Your task to perform on an android device: turn off airplane mode Image 0: 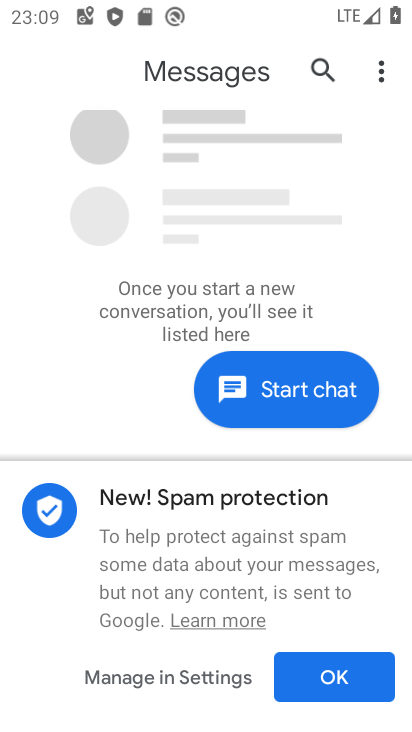
Step 0: click (210, 461)
Your task to perform on an android device: turn off airplane mode Image 1: 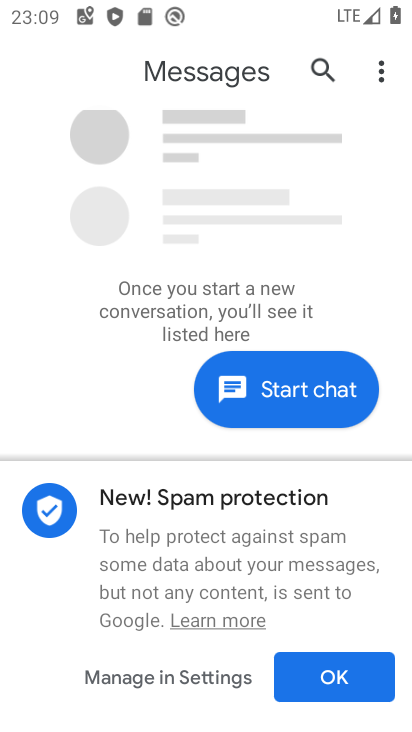
Step 1: press home button
Your task to perform on an android device: turn off airplane mode Image 2: 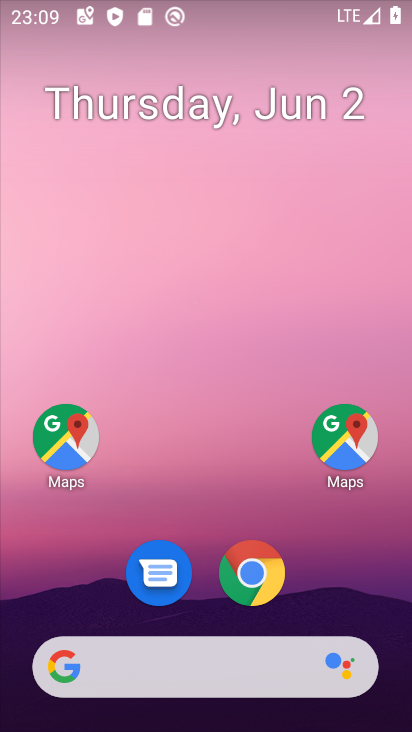
Step 2: drag from (256, 492) to (255, 299)
Your task to perform on an android device: turn off airplane mode Image 3: 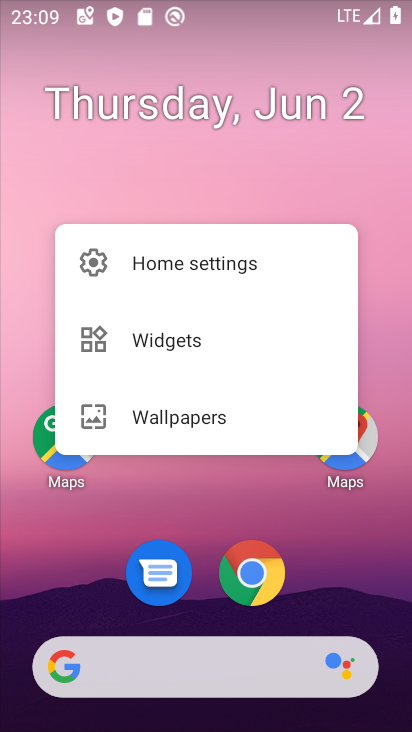
Step 3: press back button
Your task to perform on an android device: turn off airplane mode Image 4: 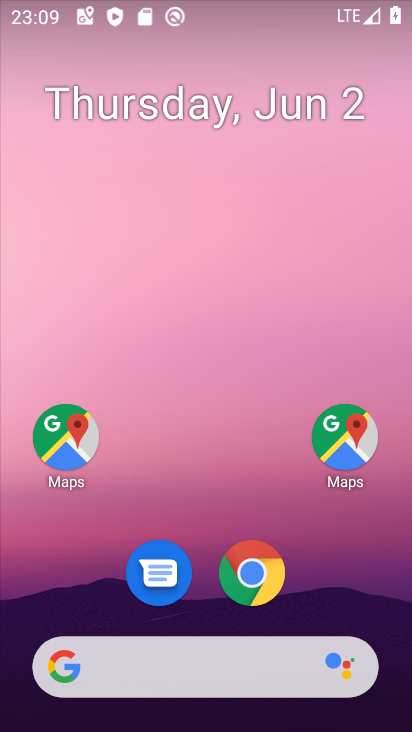
Step 4: press back button
Your task to perform on an android device: turn off airplane mode Image 5: 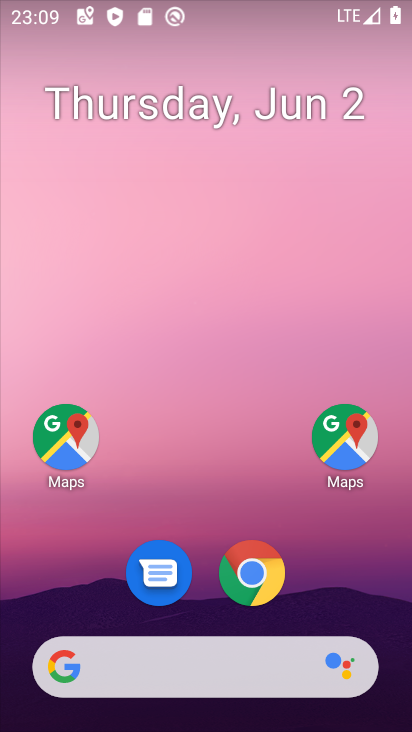
Step 5: drag from (249, 483) to (274, 184)
Your task to perform on an android device: turn off airplane mode Image 6: 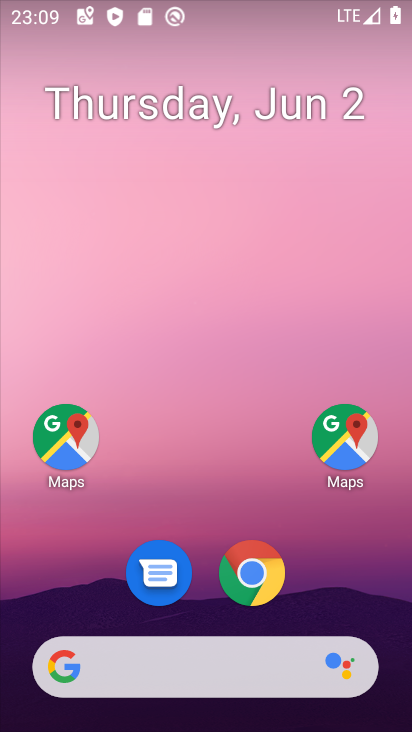
Step 6: drag from (305, 556) to (300, 200)
Your task to perform on an android device: turn off airplane mode Image 7: 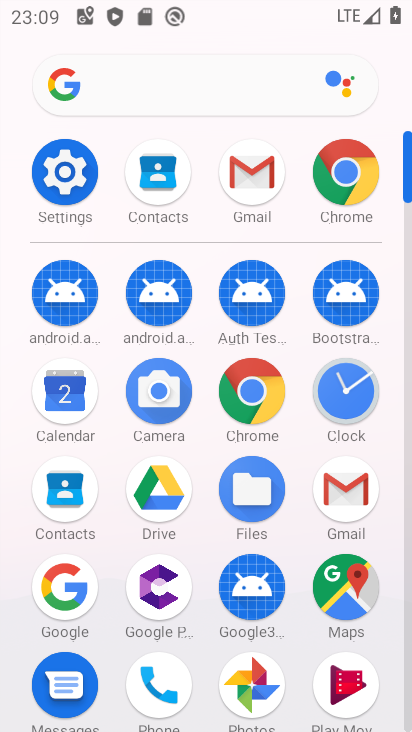
Step 7: click (57, 197)
Your task to perform on an android device: turn off airplane mode Image 8: 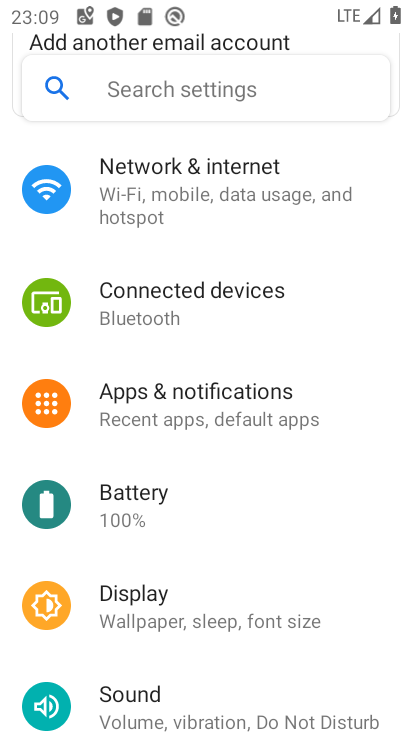
Step 8: click (224, 187)
Your task to perform on an android device: turn off airplane mode Image 9: 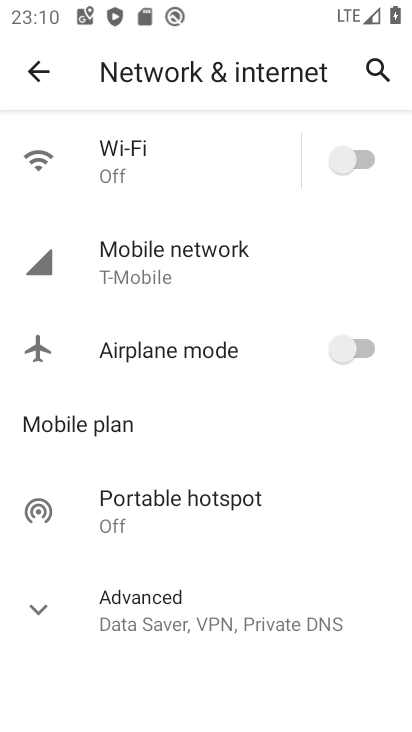
Step 9: task complete